Your task to perform on an android device: Open the calendar app, open the side menu, and click the "Day" option Image 0: 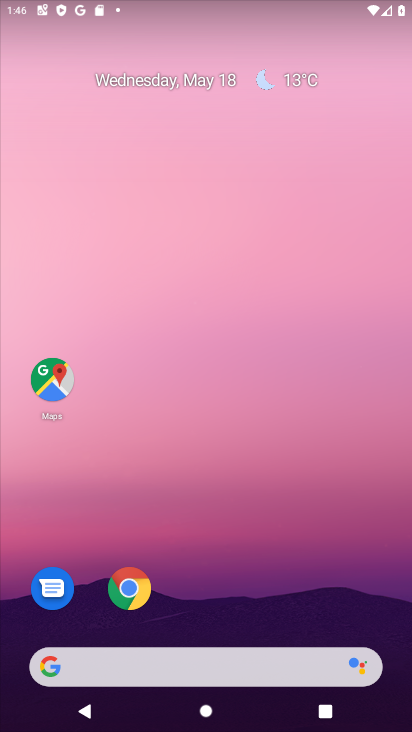
Step 0: drag from (203, 616) to (254, 144)
Your task to perform on an android device: Open the calendar app, open the side menu, and click the "Day" option Image 1: 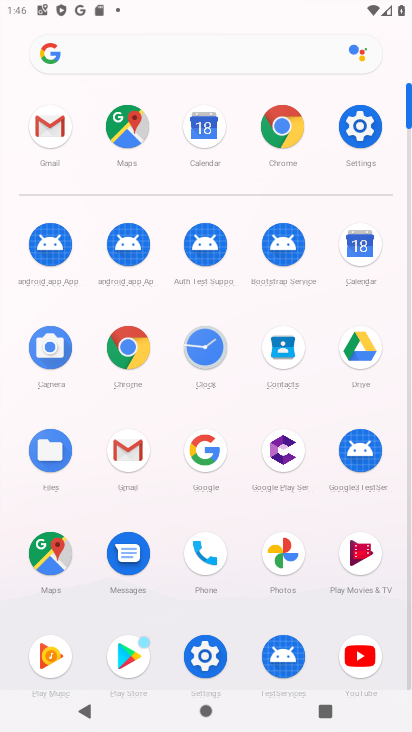
Step 1: click (360, 236)
Your task to perform on an android device: Open the calendar app, open the side menu, and click the "Day" option Image 2: 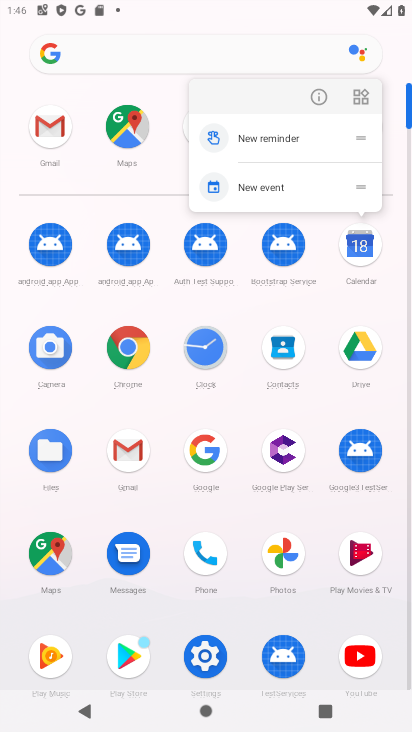
Step 2: click (314, 93)
Your task to perform on an android device: Open the calendar app, open the side menu, and click the "Day" option Image 3: 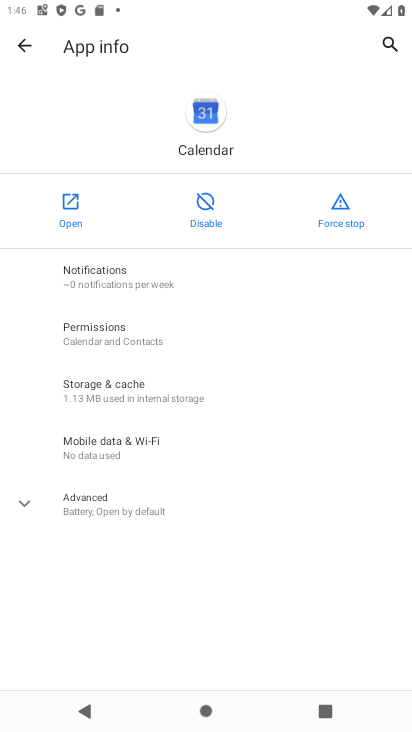
Step 3: click (73, 210)
Your task to perform on an android device: Open the calendar app, open the side menu, and click the "Day" option Image 4: 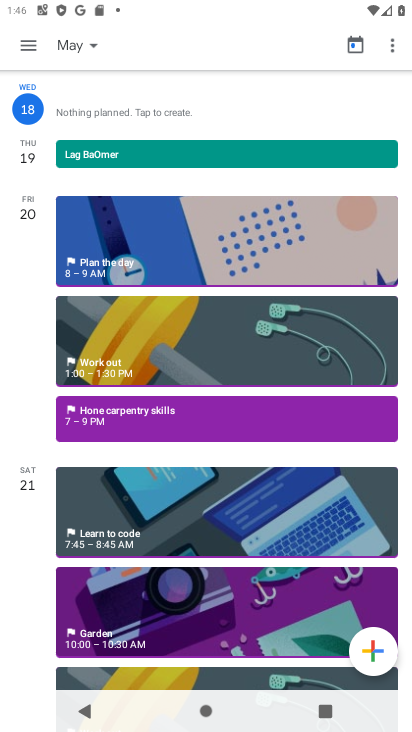
Step 4: click (73, 42)
Your task to perform on an android device: Open the calendar app, open the side menu, and click the "Day" option Image 5: 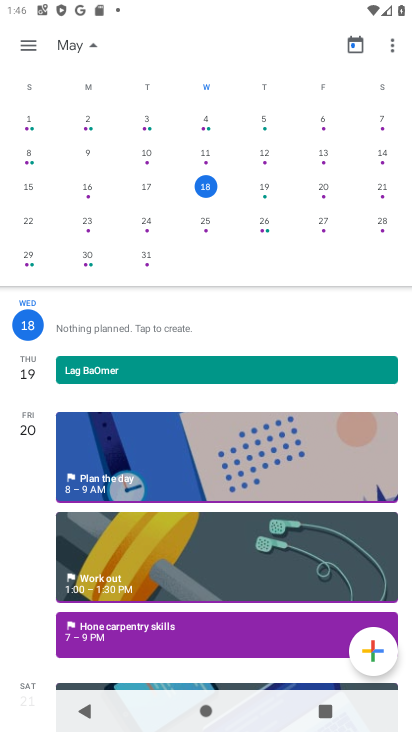
Step 5: click (73, 42)
Your task to perform on an android device: Open the calendar app, open the side menu, and click the "Day" option Image 6: 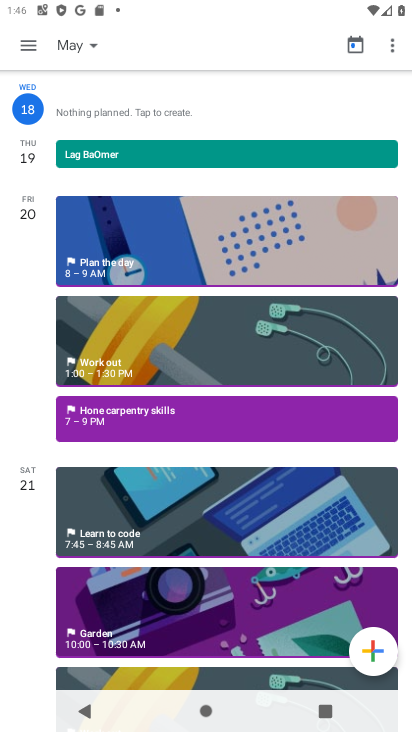
Step 6: click (25, 42)
Your task to perform on an android device: Open the calendar app, open the side menu, and click the "Day" option Image 7: 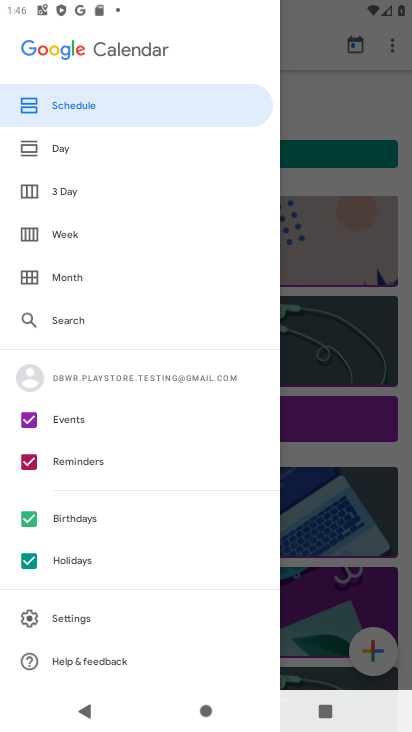
Step 7: click (88, 153)
Your task to perform on an android device: Open the calendar app, open the side menu, and click the "Day" option Image 8: 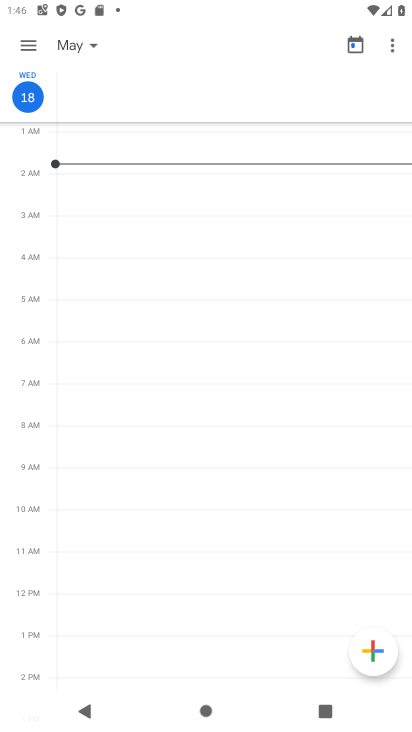
Step 8: task complete